Your task to perform on an android device: find which apps use the phone's location Image 0: 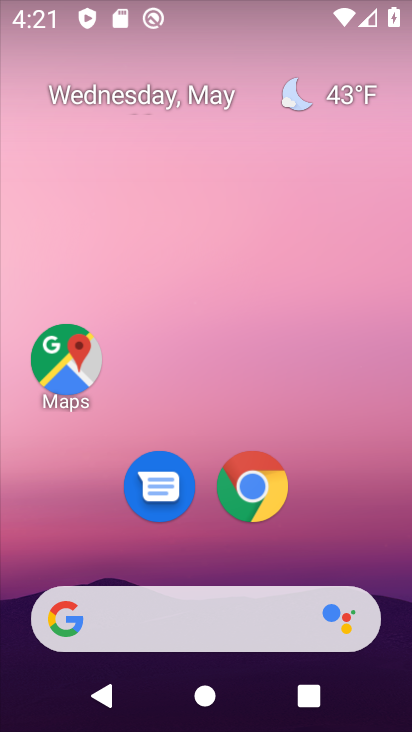
Step 0: drag from (349, 486) to (260, 14)
Your task to perform on an android device: find which apps use the phone's location Image 1: 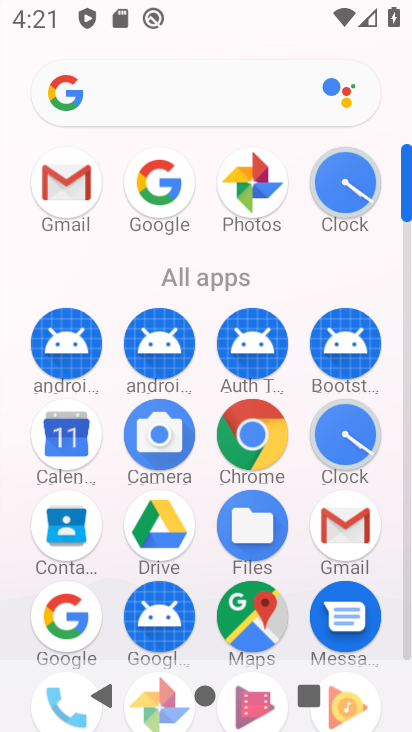
Step 1: drag from (296, 556) to (313, 267)
Your task to perform on an android device: find which apps use the phone's location Image 2: 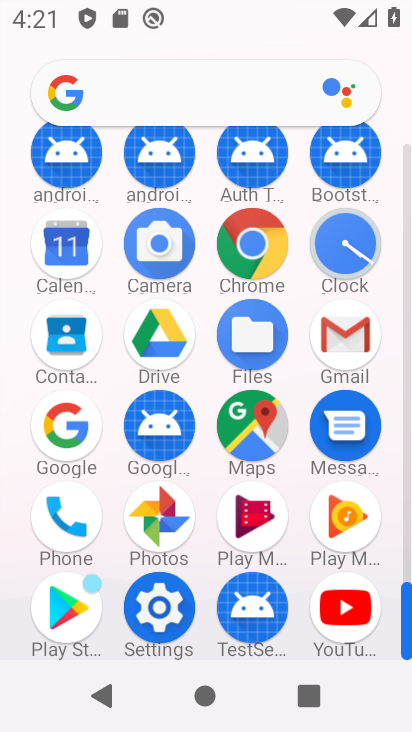
Step 2: click (159, 606)
Your task to perform on an android device: find which apps use the phone's location Image 3: 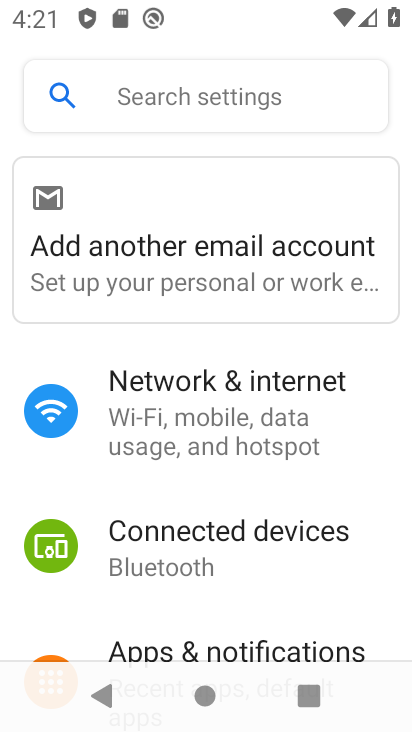
Step 3: drag from (156, 491) to (193, 329)
Your task to perform on an android device: find which apps use the phone's location Image 4: 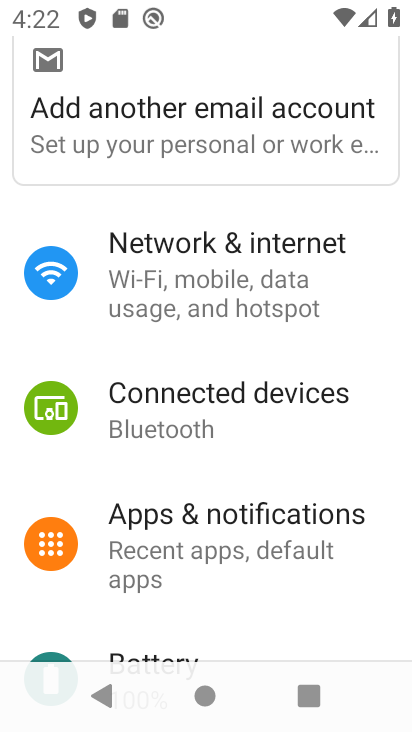
Step 4: drag from (163, 486) to (223, 347)
Your task to perform on an android device: find which apps use the phone's location Image 5: 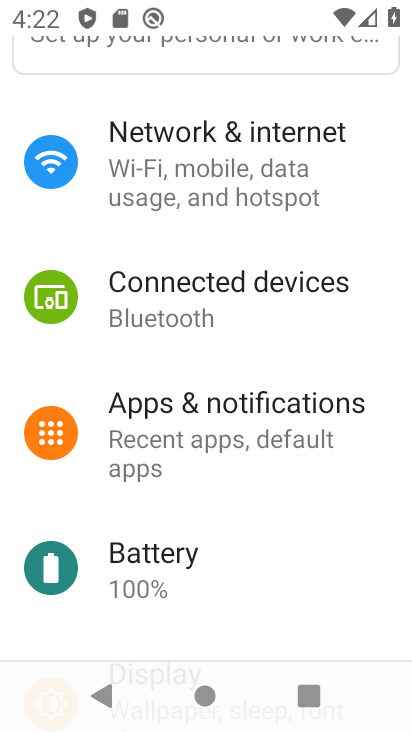
Step 5: drag from (167, 601) to (291, 397)
Your task to perform on an android device: find which apps use the phone's location Image 6: 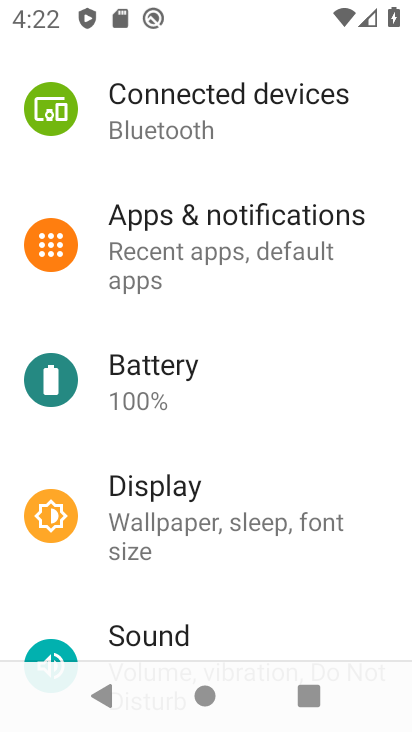
Step 6: drag from (190, 597) to (239, 403)
Your task to perform on an android device: find which apps use the phone's location Image 7: 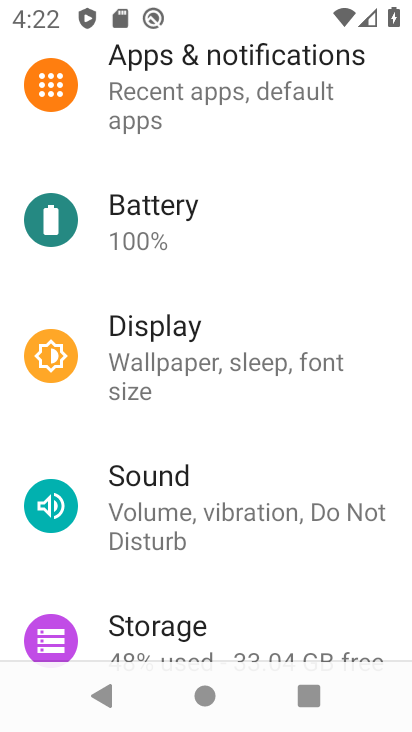
Step 7: drag from (146, 590) to (265, 380)
Your task to perform on an android device: find which apps use the phone's location Image 8: 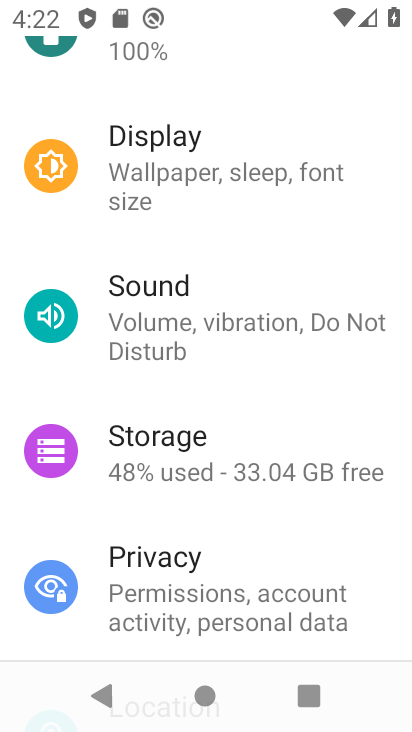
Step 8: drag from (164, 534) to (295, 325)
Your task to perform on an android device: find which apps use the phone's location Image 9: 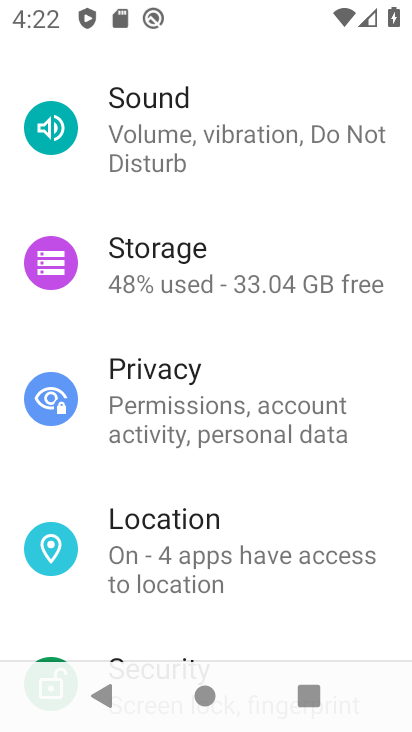
Step 9: click (123, 530)
Your task to perform on an android device: find which apps use the phone's location Image 10: 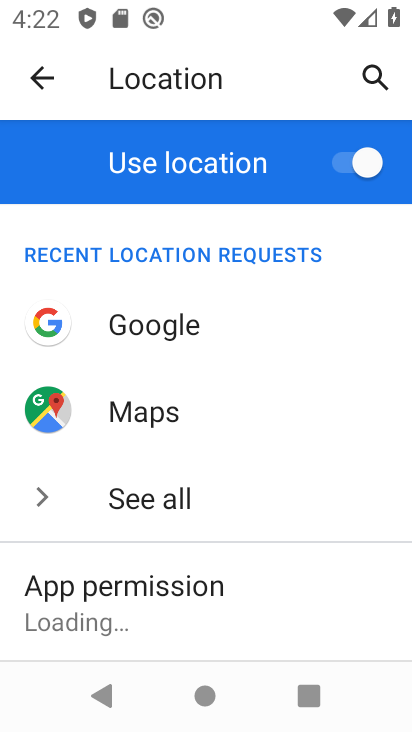
Step 10: drag from (192, 608) to (283, 390)
Your task to perform on an android device: find which apps use the phone's location Image 11: 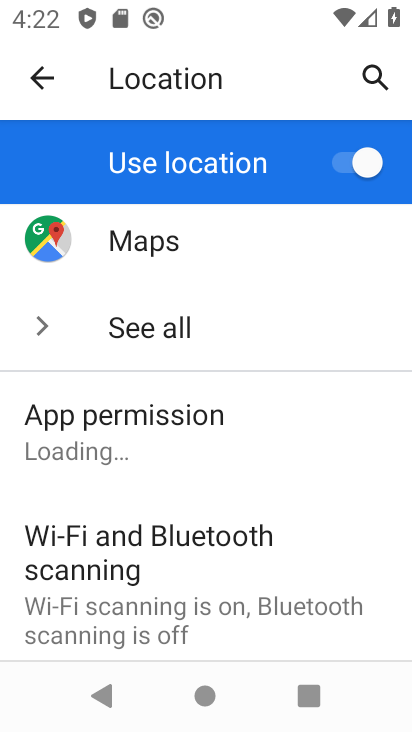
Step 11: drag from (183, 571) to (291, 352)
Your task to perform on an android device: find which apps use the phone's location Image 12: 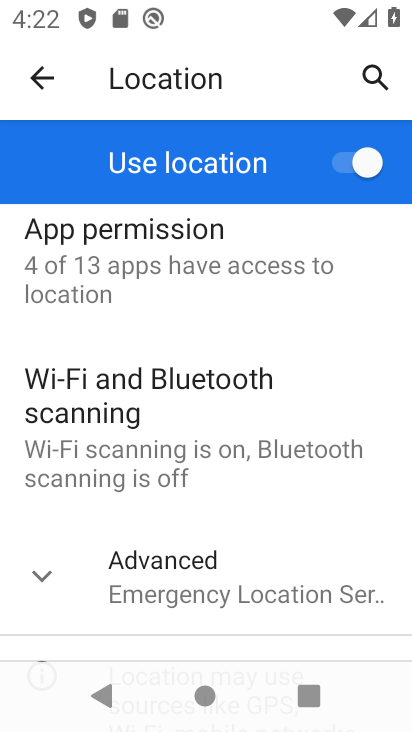
Step 12: click (137, 261)
Your task to perform on an android device: find which apps use the phone's location Image 13: 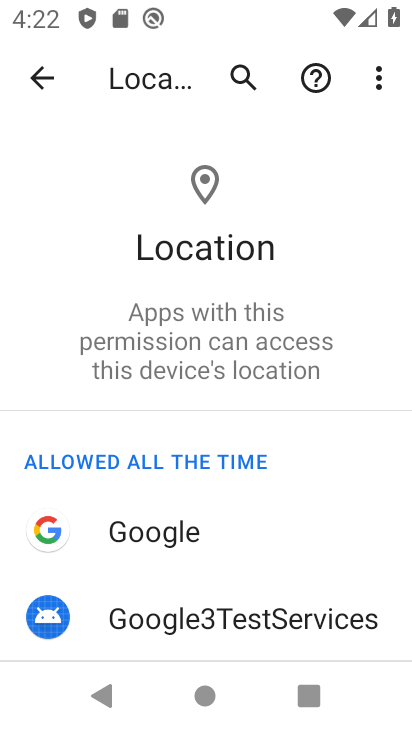
Step 13: drag from (175, 559) to (277, 329)
Your task to perform on an android device: find which apps use the phone's location Image 14: 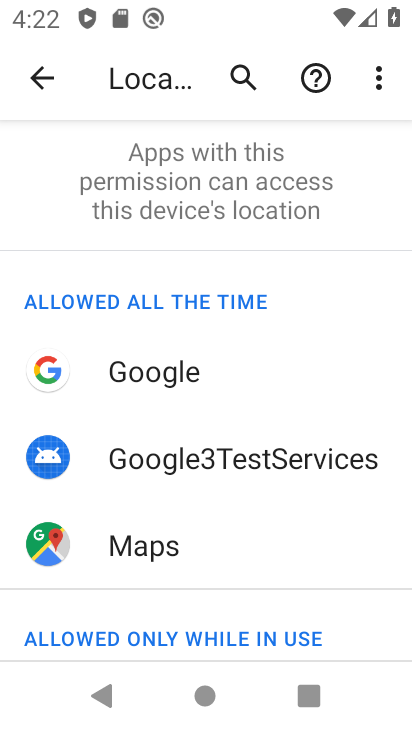
Step 14: click (134, 548)
Your task to perform on an android device: find which apps use the phone's location Image 15: 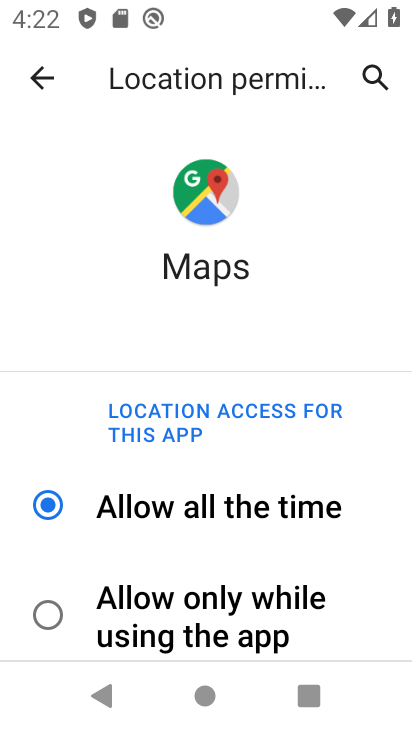
Step 15: task complete